Your task to perform on an android device: turn on wifi Image 0: 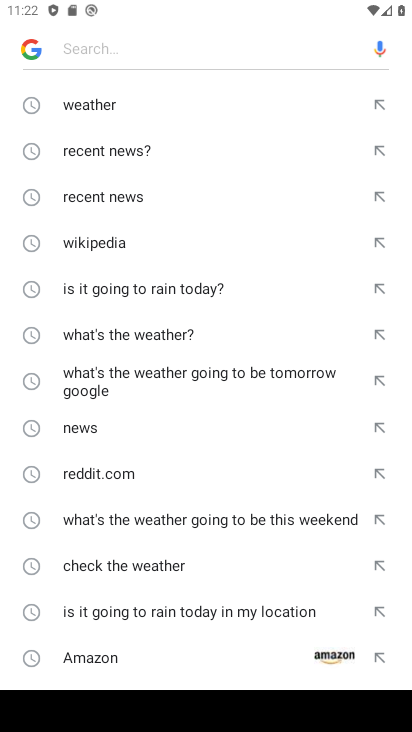
Step 0: press home button
Your task to perform on an android device: turn on wifi Image 1: 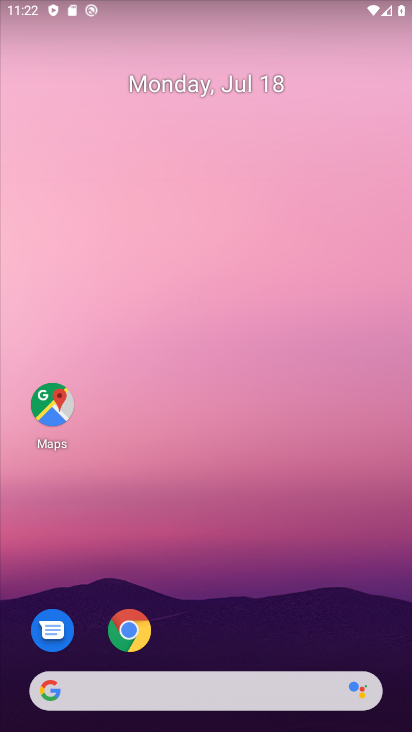
Step 1: drag from (240, 625) to (278, 16)
Your task to perform on an android device: turn on wifi Image 2: 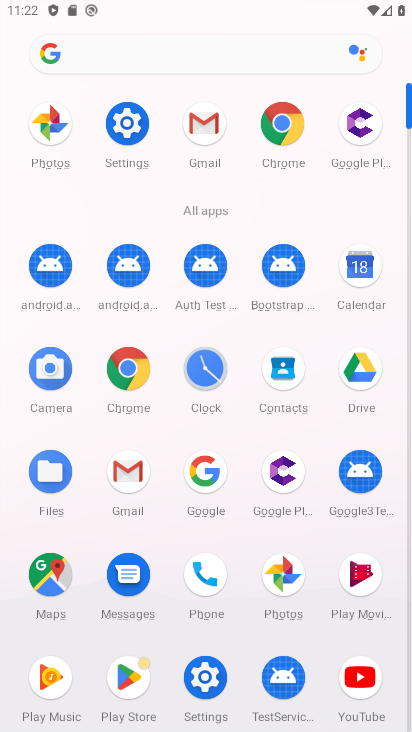
Step 2: click (128, 154)
Your task to perform on an android device: turn on wifi Image 3: 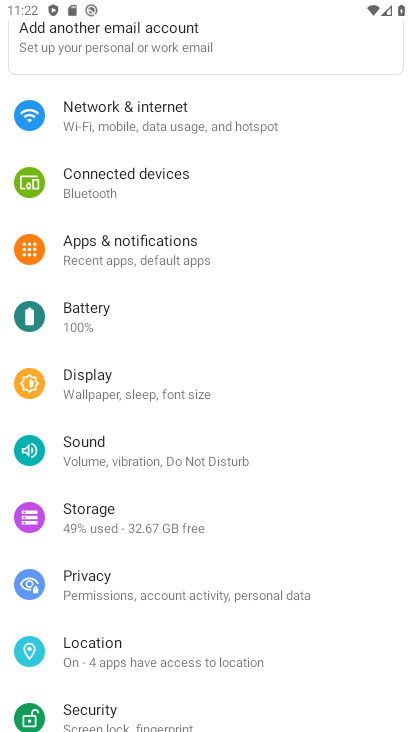
Step 3: click (162, 125)
Your task to perform on an android device: turn on wifi Image 4: 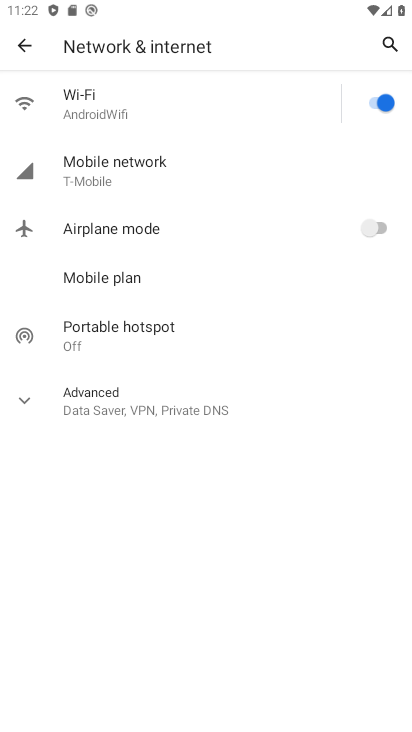
Step 4: task complete